Your task to perform on an android device: change the clock display to digital Image 0: 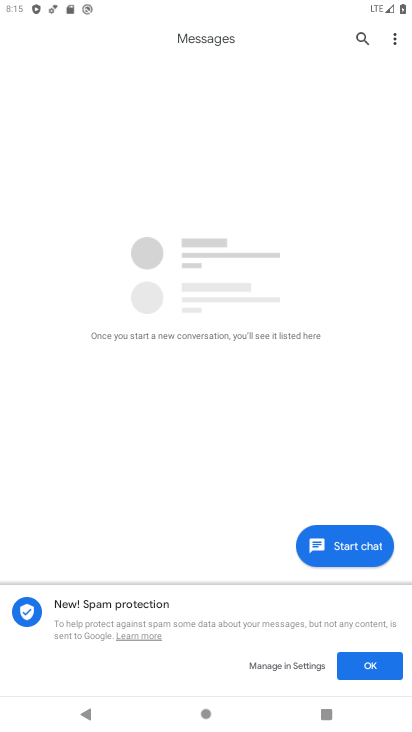
Step 0: press home button
Your task to perform on an android device: change the clock display to digital Image 1: 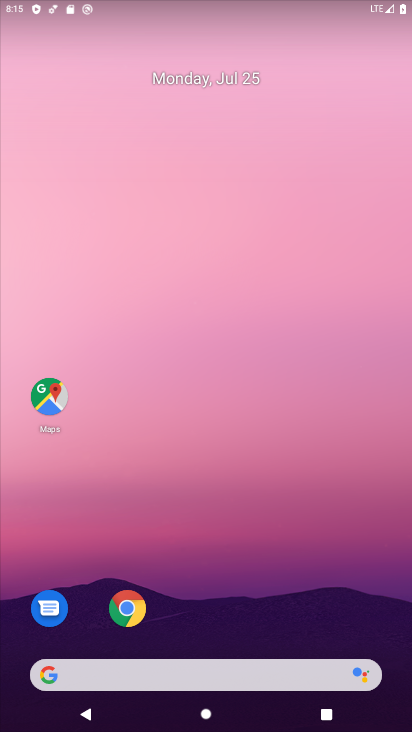
Step 1: drag from (227, 687) to (242, 146)
Your task to perform on an android device: change the clock display to digital Image 2: 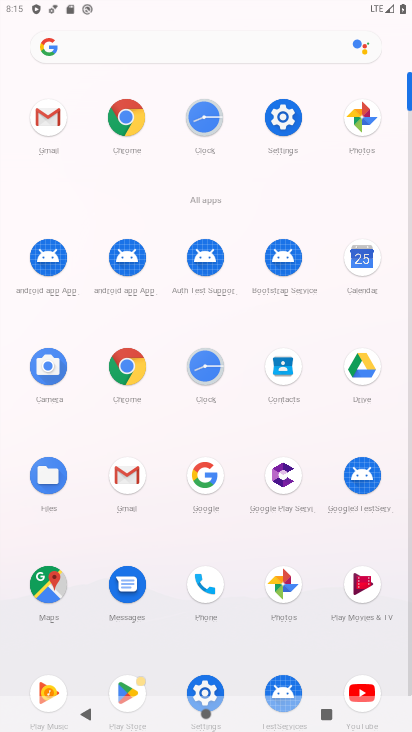
Step 2: click (206, 366)
Your task to perform on an android device: change the clock display to digital Image 3: 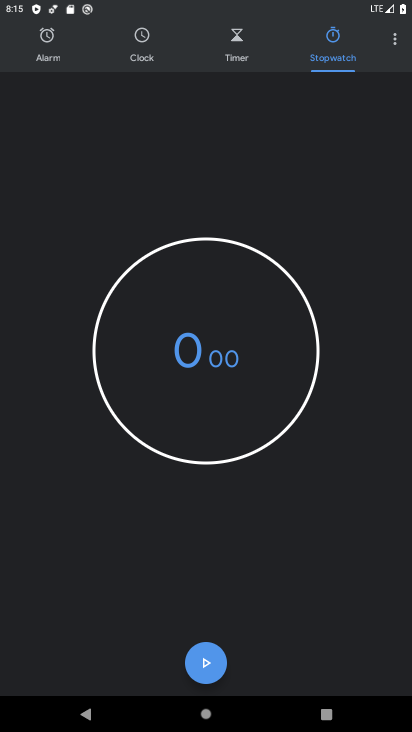
Step 3: click (398, 39)
Your task to perform on an android device: change the clock display to digital Image 4: 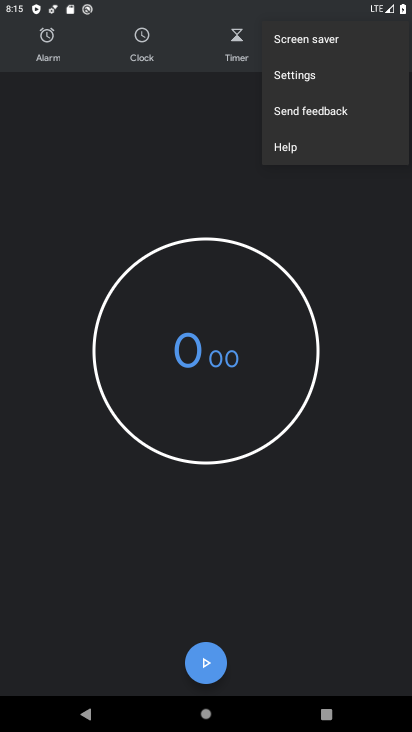
Step 4: click (303, 69)
Your task to perform on an android device: change the clock display to digital Image 5: 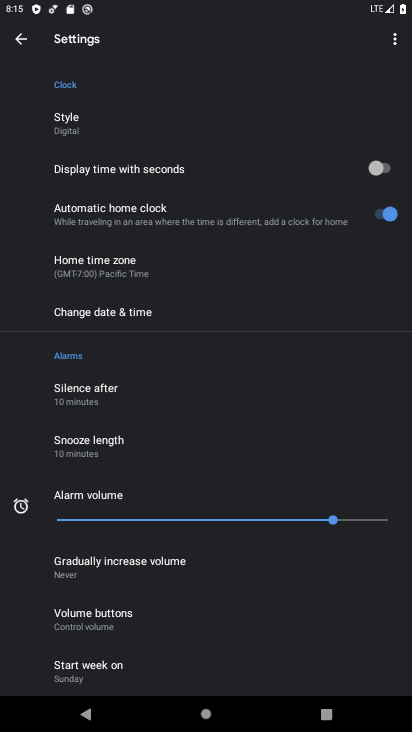
Step 5: task complete